Your task to perform on an android device: Go to Wikipedia Image 0: 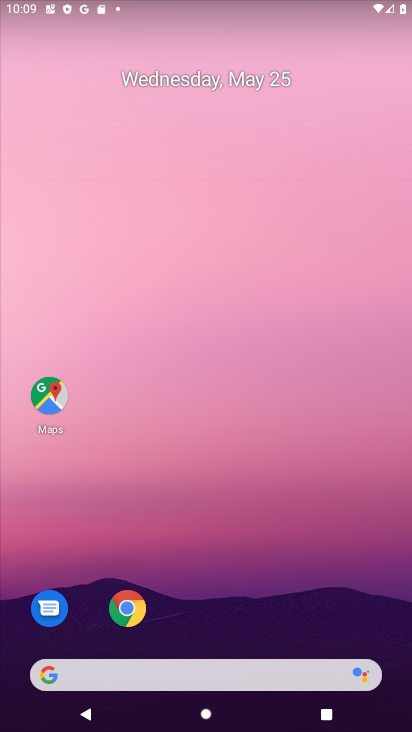
Step 0: click (127, 611)
Your task to perform on an android device: Go to Wikipedia Image 1: 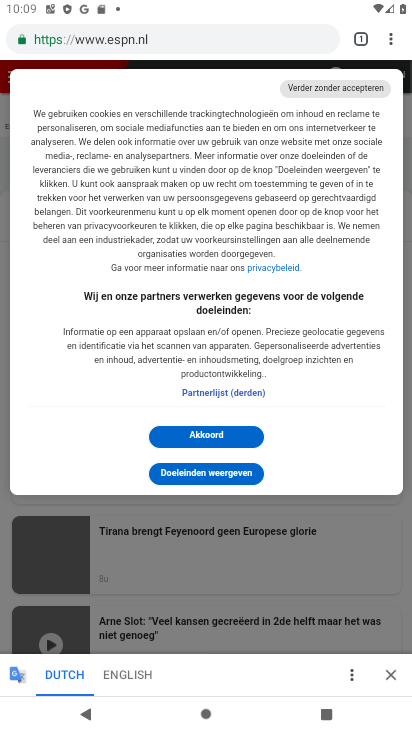
Step 1: click (114, 46)
Your task to perform on an android device: Go to Wikipedia Image 2: 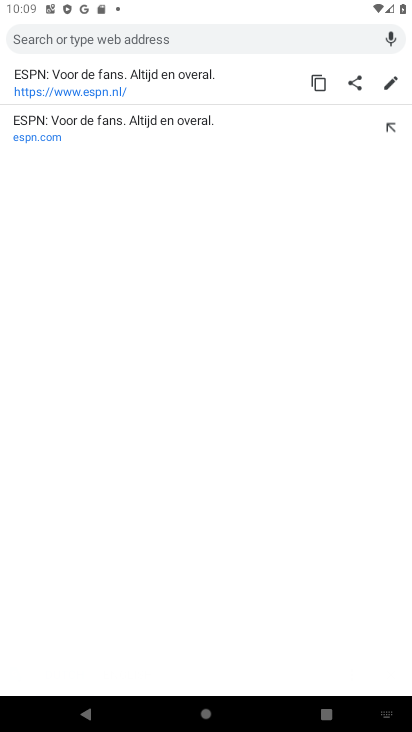
Step 2: type "wikipedia"
Your task to perform on an android device: Go to Wikipedia Image 3: 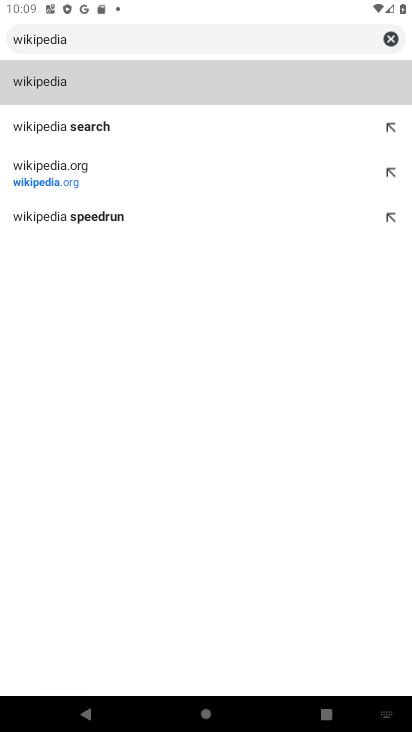
Step 3: click (51, 84)
Your task to perform on an android device: Go to Wikipedia Image 4: 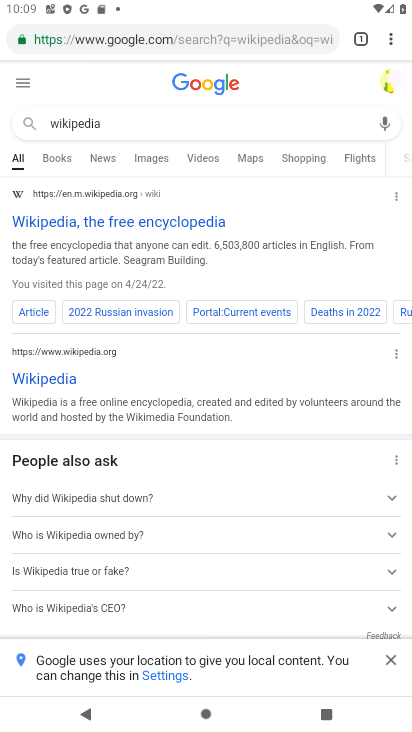
Step 4: click (74, 189)
Your task to perform on an android device: Go to Wikipedia Image 5: 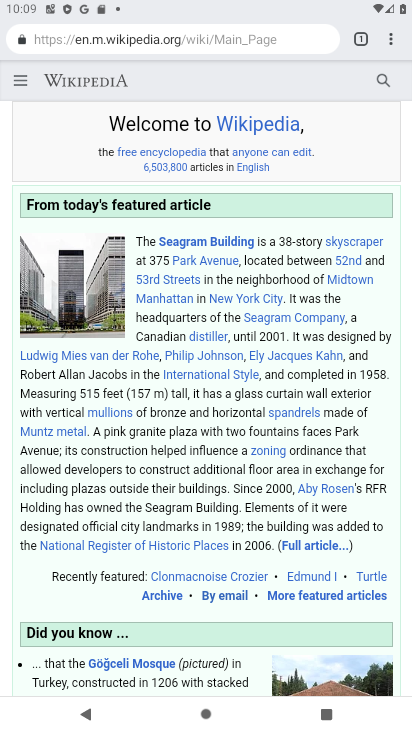
Step 5: task complete